Your task to perform on an android device: turn on location history Image 0: 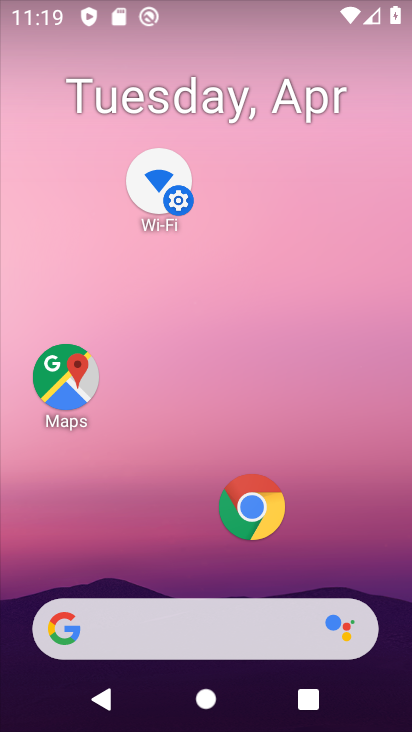
Step 0: drag from (11, 662) to (185, 251)
Your task to perform on an android device: turn on location history Image 1: 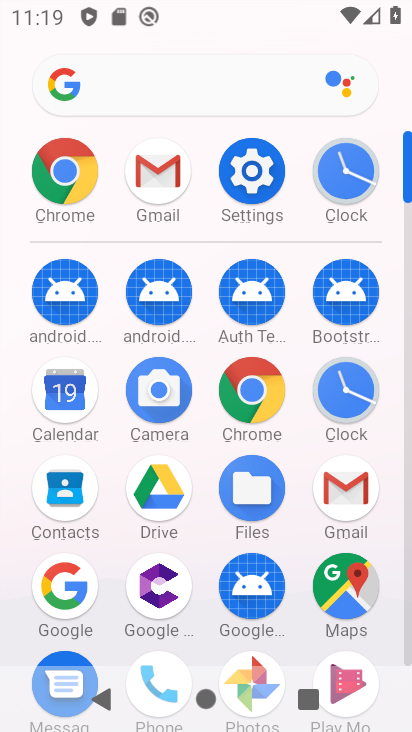
Step 1: click (248, 166)
Your task to perform on an android device: turn on location history Image 2: 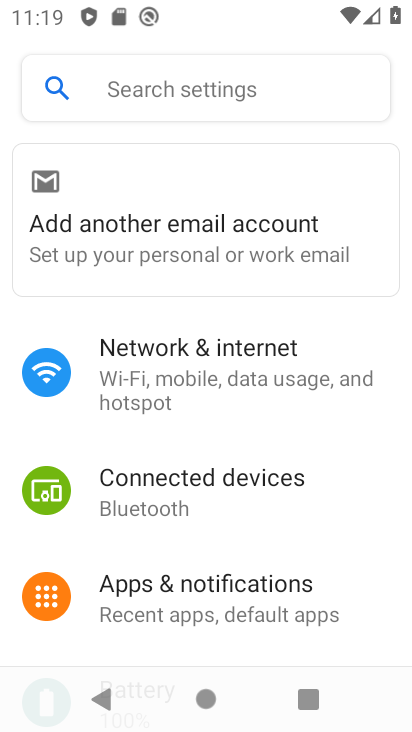
Step 2: drag from (179, 570) to (264, 223)
Your task to perform on an android device: turn on location history Image 3: 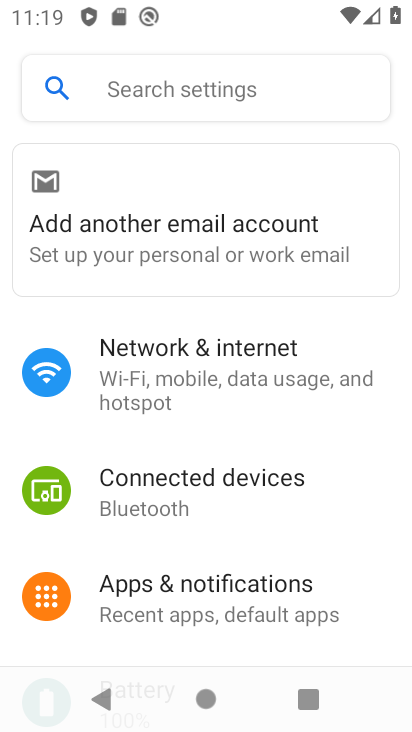
Step 3: drag from (78, 597) to (174, 290)
Your task to perform on an android device: turn on location history Image 4: 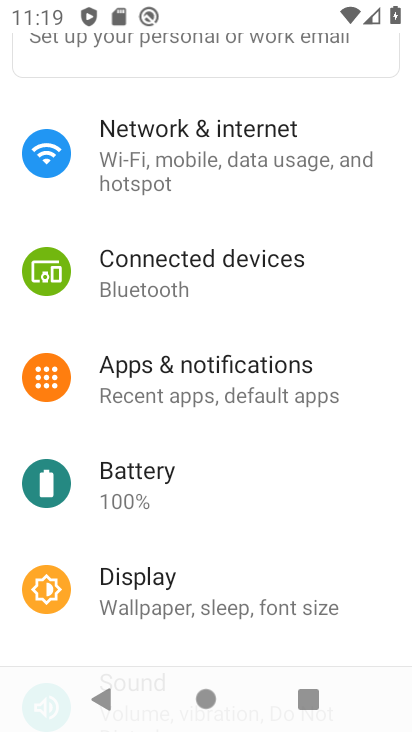
Step 4: drag from (84, 629) to (214, 327)
Your task to perform on an android device: turn on location history Image 5: 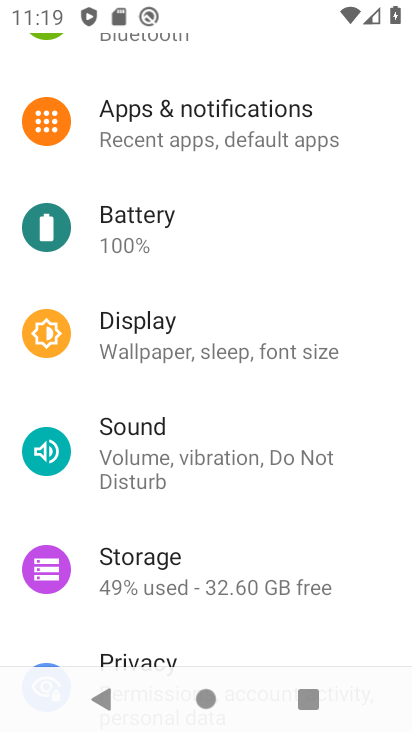
Step 5: drag from (110, 656) to (244, 362)
Your task to perform on an android device: turn on location history Image 6: 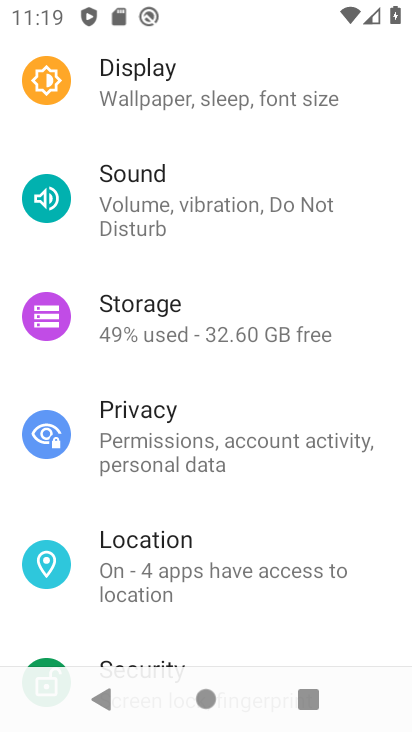
Step 6: click (151, 548)
Your task to perform on an android device: turn on location history Image 7: 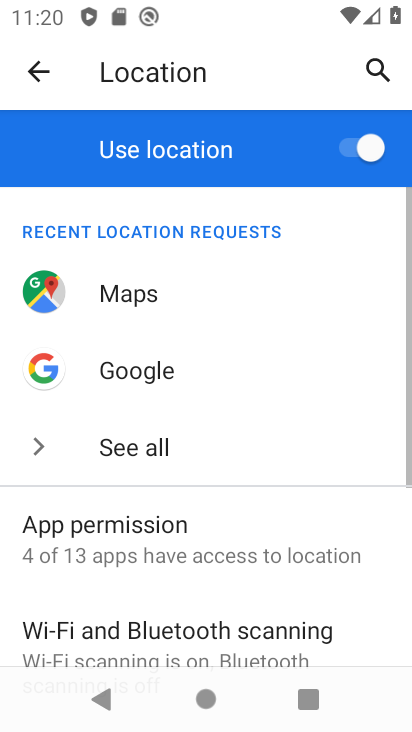
Step 7: drag from (138, 663) to (249, 387)
Your task to perform on an android device: turn on location history Image 8: 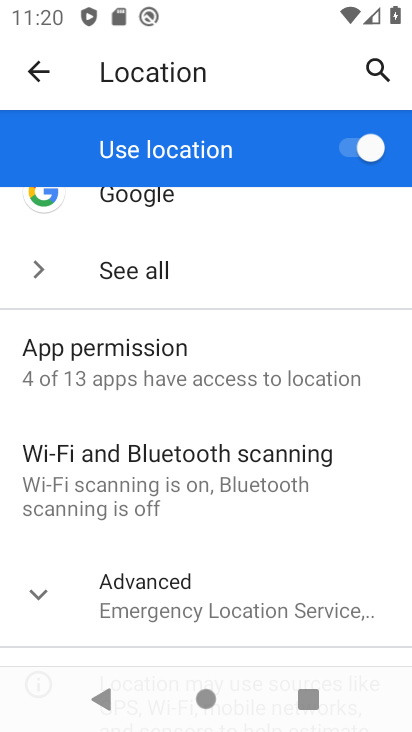
Step 8: click (193, 597)
Your task to perform on an android device: turn on location history Image 9: 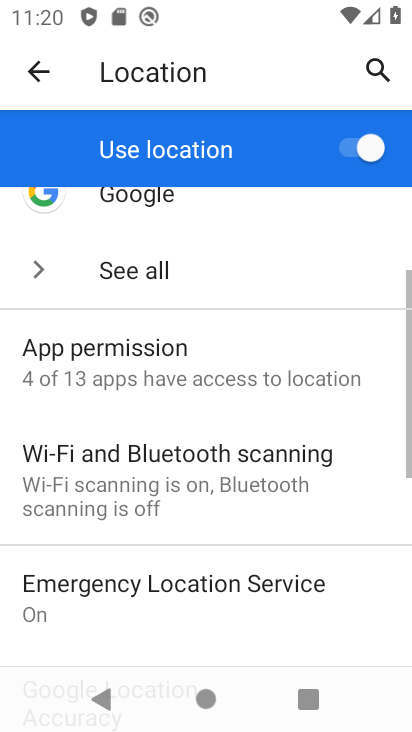
Step 9: drag from (197, 536) to (265, 232)
Your task to perform on an android device: turn on location history Image 10: 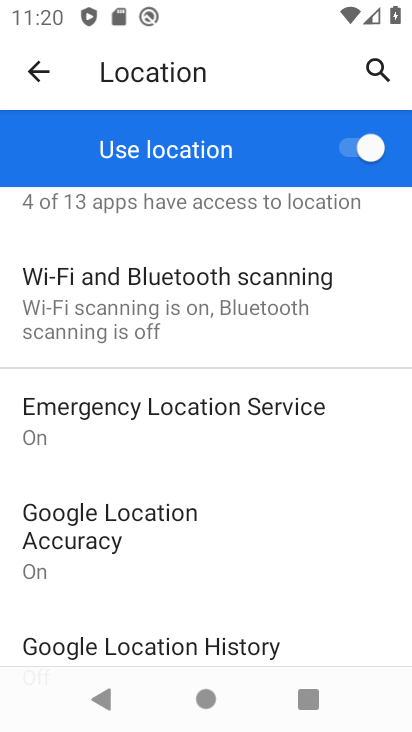
Step 10: drag from (119, 561) to (226, 315)
Your task to perform on an android device: turn on location history Image 11: 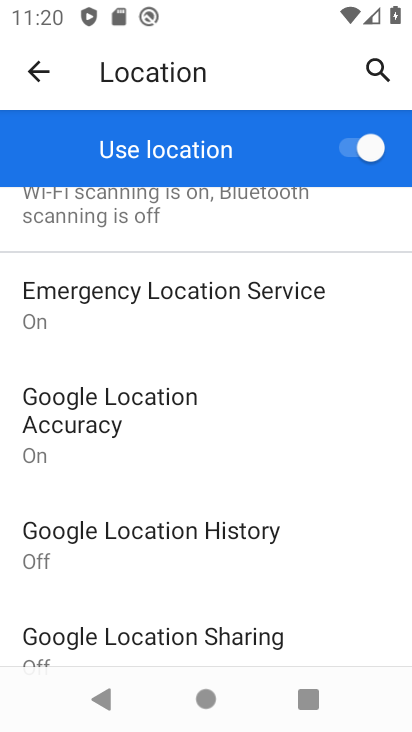
Step 11: click (156, 534)
Your task to perform on an android device: turn on location history Image 12: 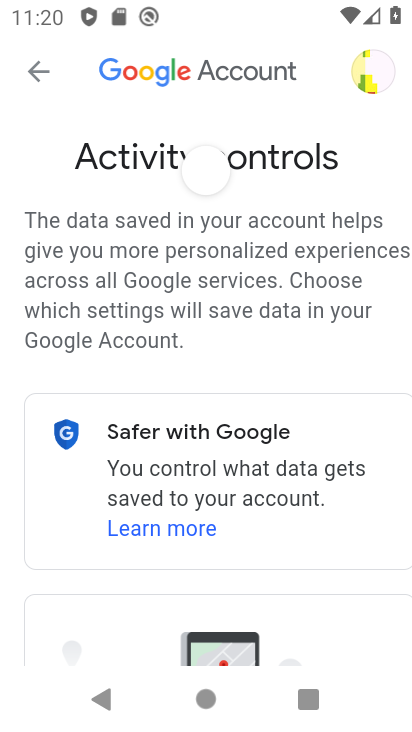
Step 12: drag from (193, 529) to (295, 258)
Your task to perform on an android device: turn on location history Image 13: 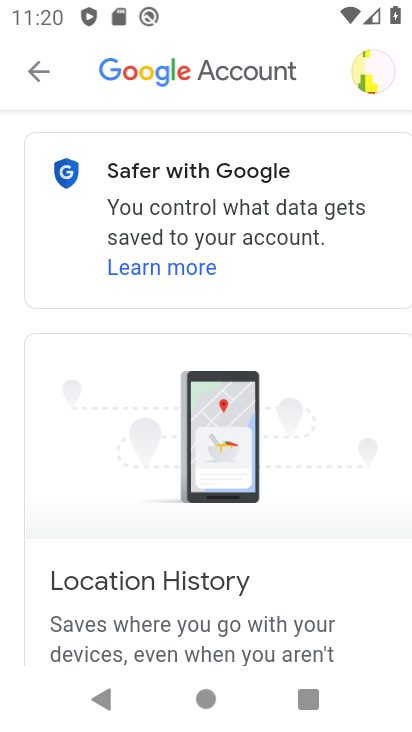
Step 13: drag from (247, 508) to (336, 244)
Your task to perform on an android device: turn on location history Image 14: 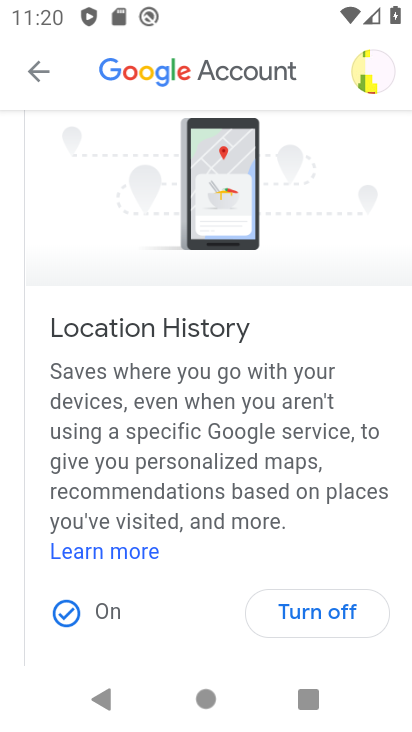
Step 14: click (76, 613)
Your task to perform on an android device: turn on location history Image 15: 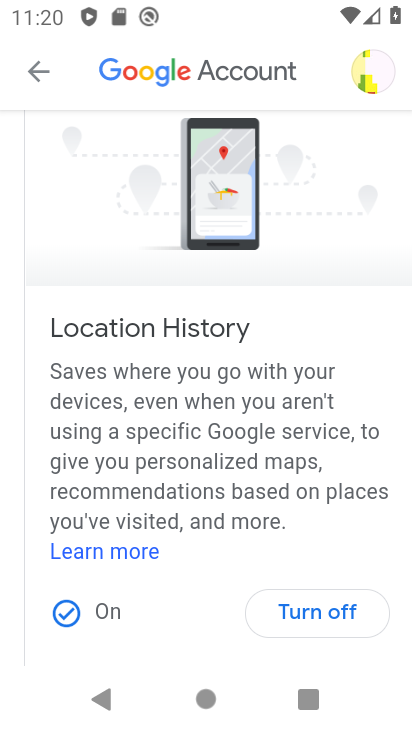
Step 15: task complete